Your task to perform on an android device: turn on notifications settings in the gmail app Image 0: 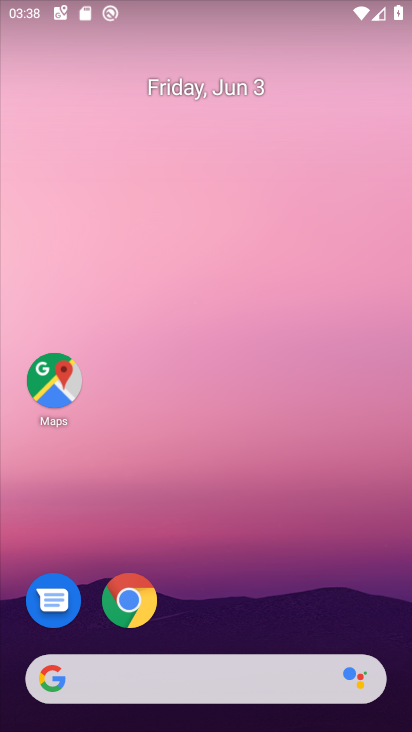
Step 0: drag from (276, 567) to (247, 352)
Your task to perform on an android device: turn on notifications settings in the gmail app Image 1: 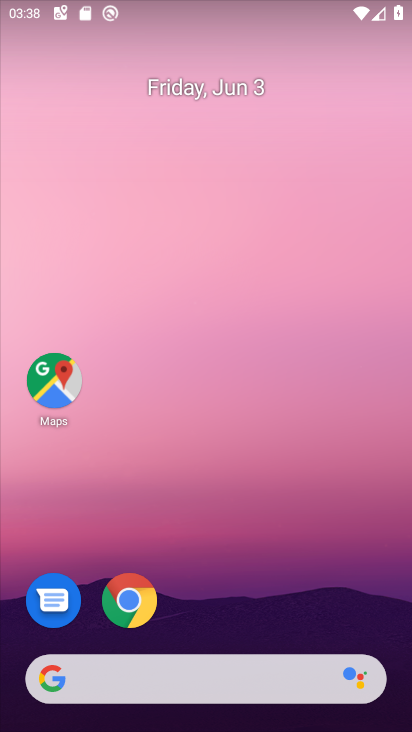
Step 1: drag from (228, 591) to (239, 207)
Your task to perform on an android device: turn on notifications settings in the gmail app Image 2: 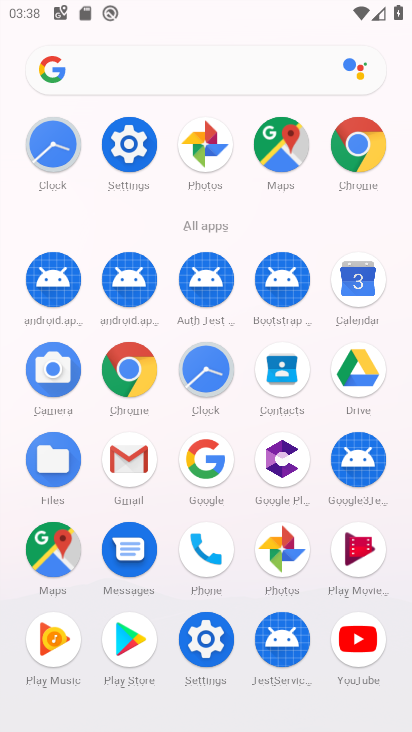
Step 2: click (141, 466)
Your task to perform on an android device: turn on notifications settings in the gmail app Image 3: 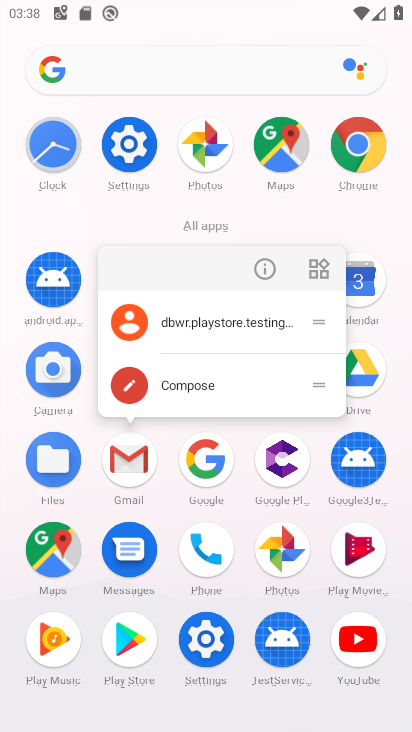
Step 3: click (126, 463)
Your task to perform on an android device: turn on notifications settings in the gmail app Image 4: 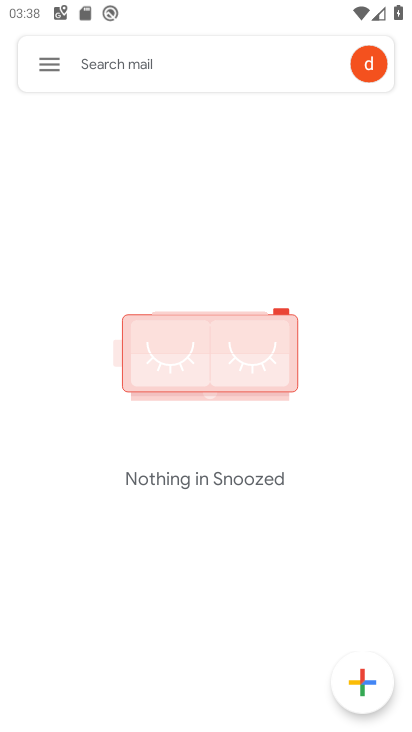
Step 4: click (56, 70)
Your task to perform on an android device: turn on notifications settings in the gmail app Image 5: 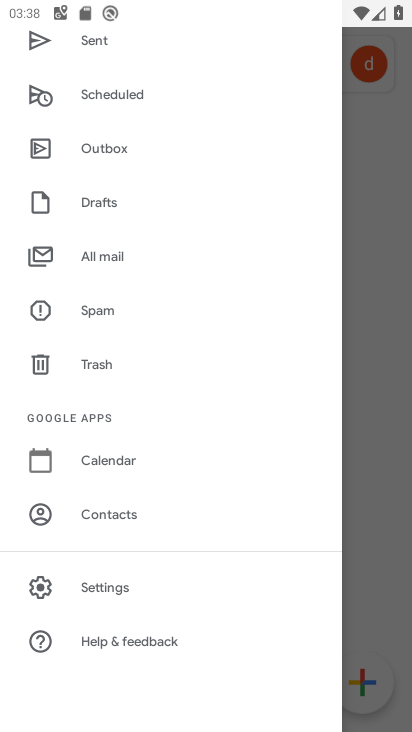
Step 5: click (130, 587)
Your task to perform on an android device: turn on notifications settings in the gmail app Image 6: 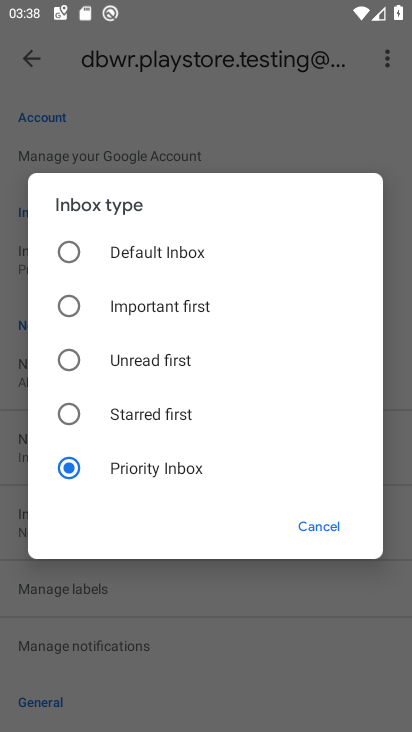
Step 6: click (333, 530)
Your task to perform on an android device: turn on notifications settings in the gmail app Image 7: 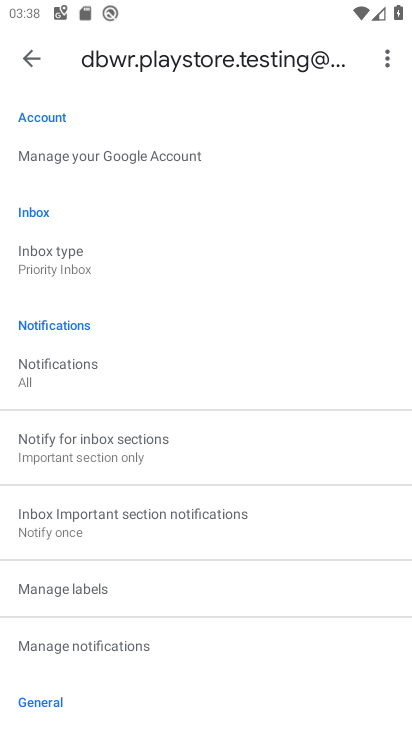
Step 7: click (111, 650)
Your task to perform on an android device: turn on notifications settings in the gmail app Image 8: 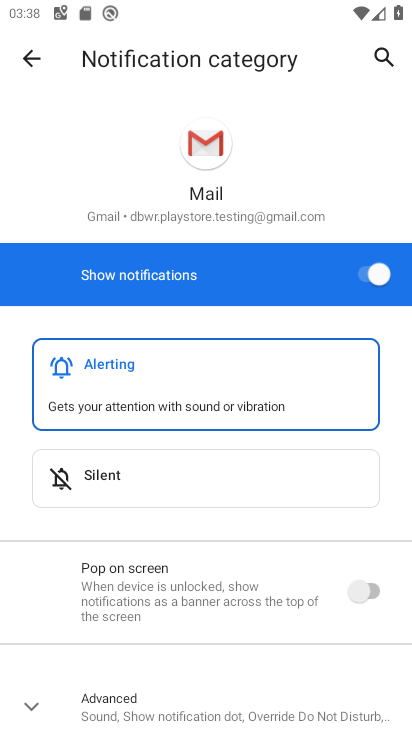
Step 8: task complete